Your task to perform on an android device: Open privacy settings Image 0: 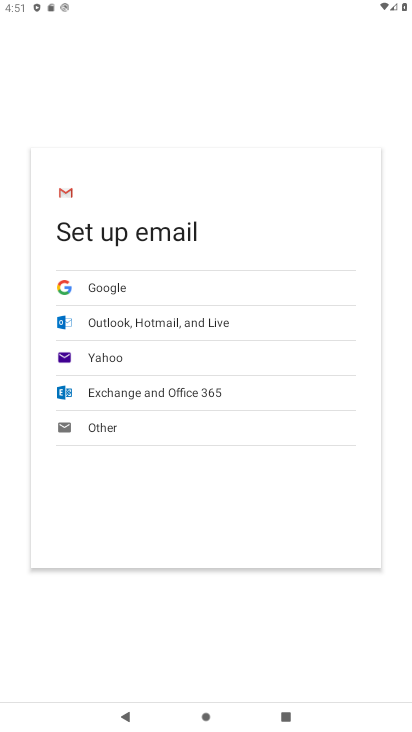
Step 0: press home button
Your task to perform on an android device: Open privacy settings Image 1: 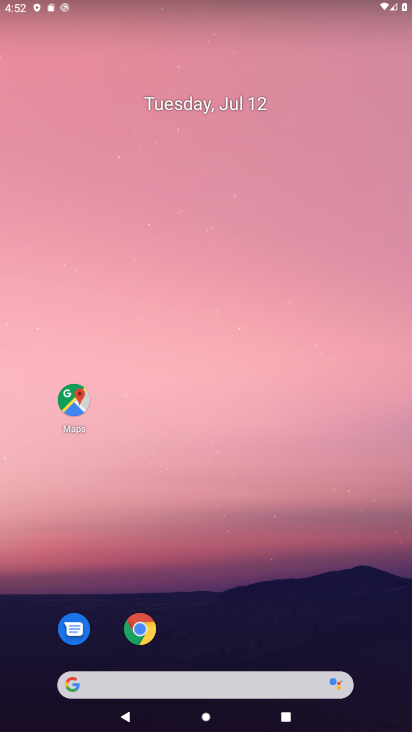
Step 1: drag from (207, 562) to (232, 59)
Your task to perform on an android device: Open privacy settings Image 2: 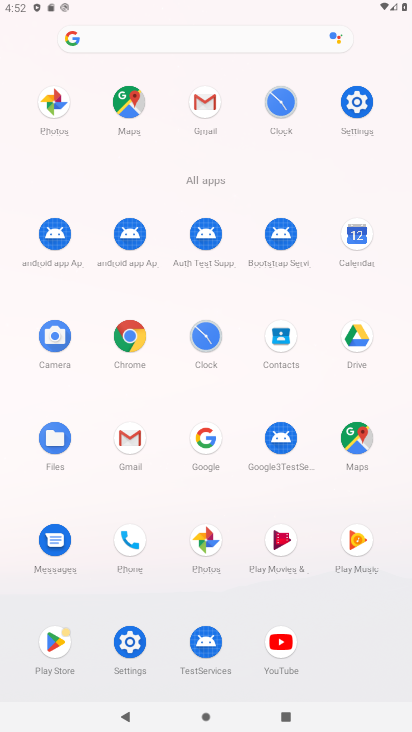
Step 2: click (129, 631)
Your task to perform on an android device: Open privacy settings Image 3: 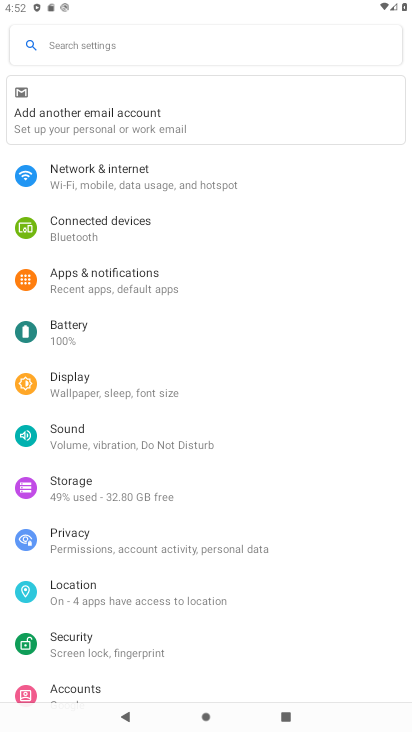
Step 3: click (69, 542)
Your task to perform on an android device: Open privacy settings Image 4: 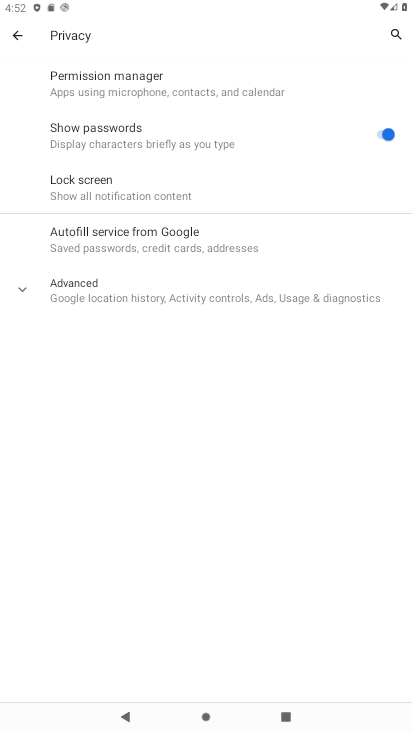
Step 4: task complete